Your task to perform on an android device: Go to location settings Image 0: 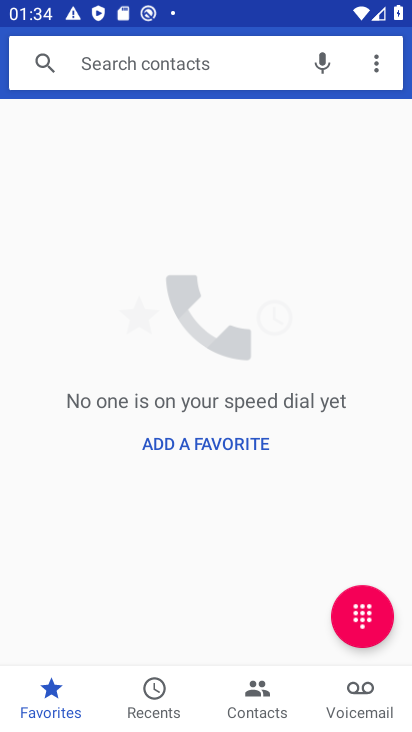
Step 0: press home button
Your task to perform on an android device: Go to location settings Image 1: 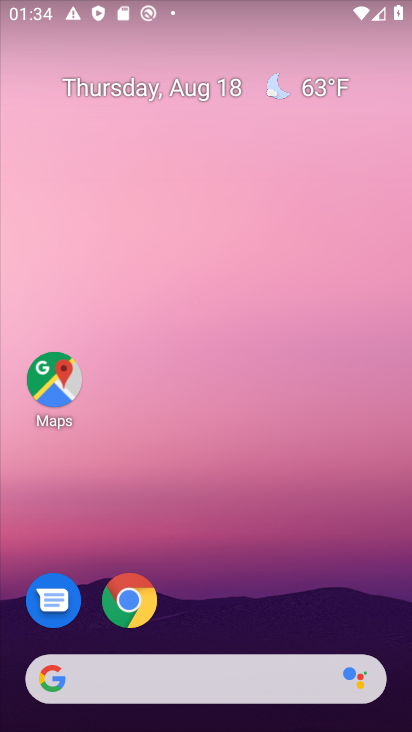
Step 1: drag from (250, 584) to (238, 162)
Your task to perform on an android device: Go to location settings Image 2: 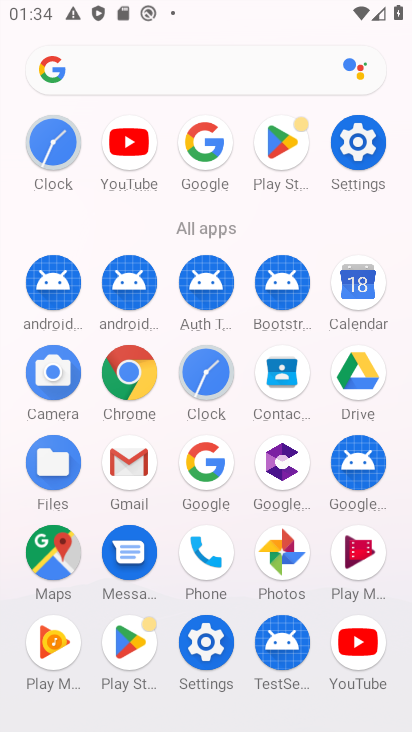
Step 2: click (356, 149)
Your task to perform on an android device: Go to location settings Image 3: 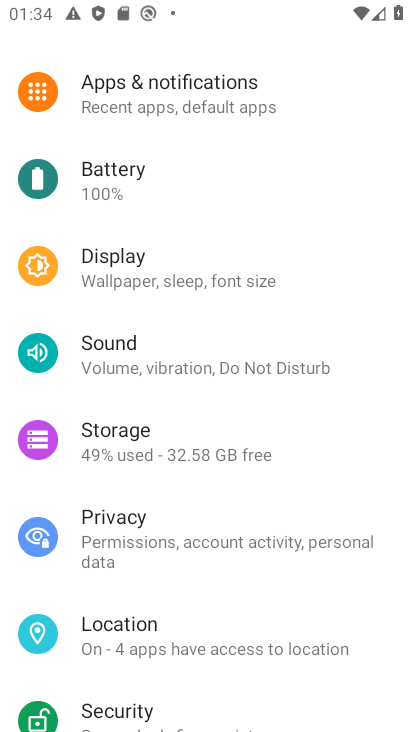
Step 3: click (135, 622)
Your task to perform on an android device: Go to location settings Image 4: 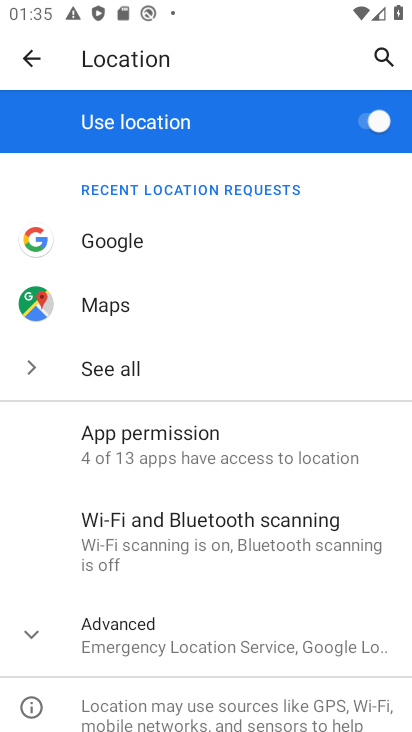
Step 4: task complete